Your task to perform on an android device: set the timer Image 0: 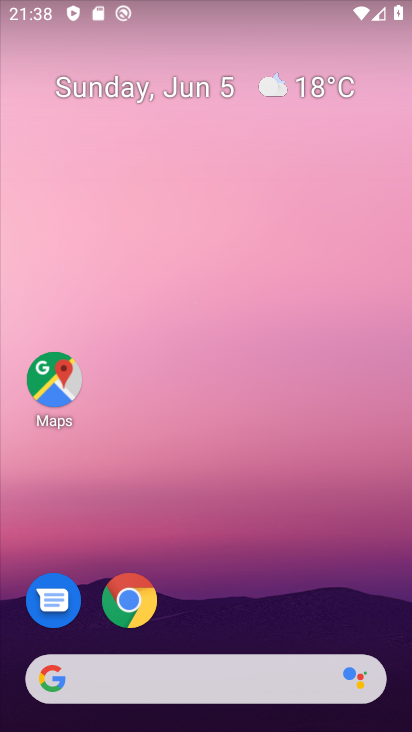
Step 0: drag from (287, 556) to (201, 126)
Your task to perform on an android device: set the timer Image 1: 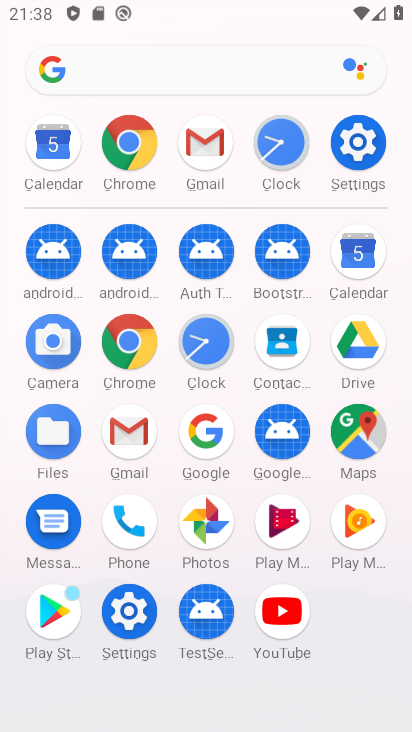
Step 1: click (209, 346)
Your task to perform on an android device: set the timer Image 2: 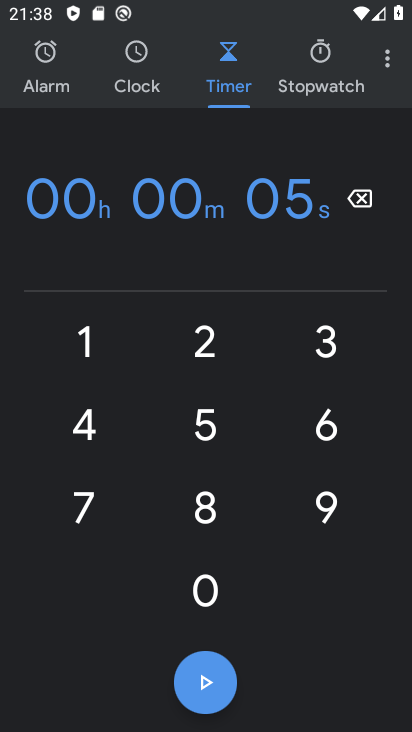
Step 2: task complete